Your task to perform on an android device: find photos in the google photos app Image 0: 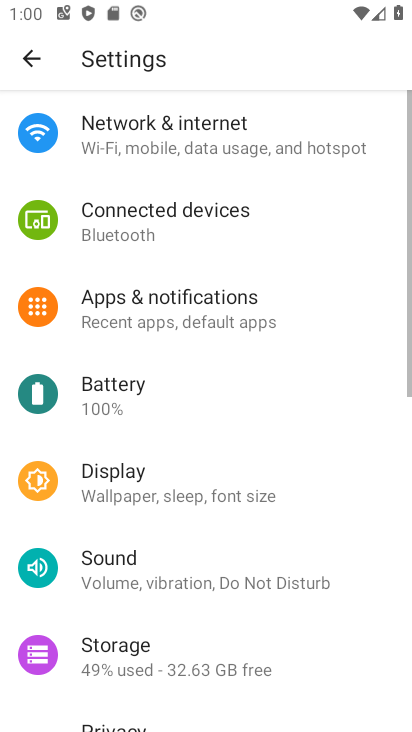
Step 0: press home button
Your task to perform on an android device: find photos in the google photos app Image 1: 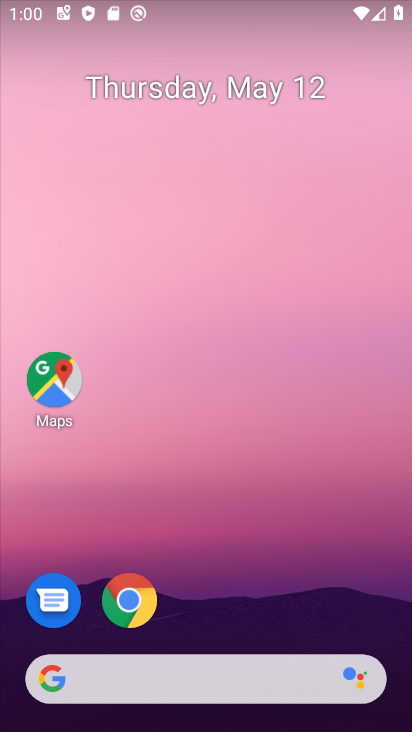
Step 1: drag from (174, 659) to (241, 218)
Your task to perform on an android device: find photos in the google photos app Image 2: 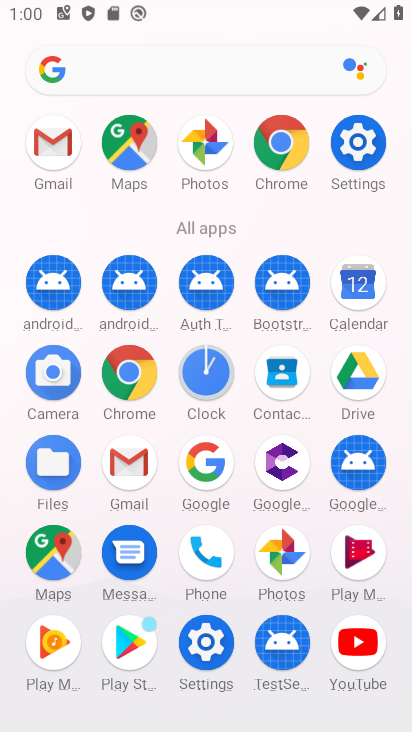
Step 2: click (279, 561)
Your task to perform on an android device: find photos in the google photos app Image 3: 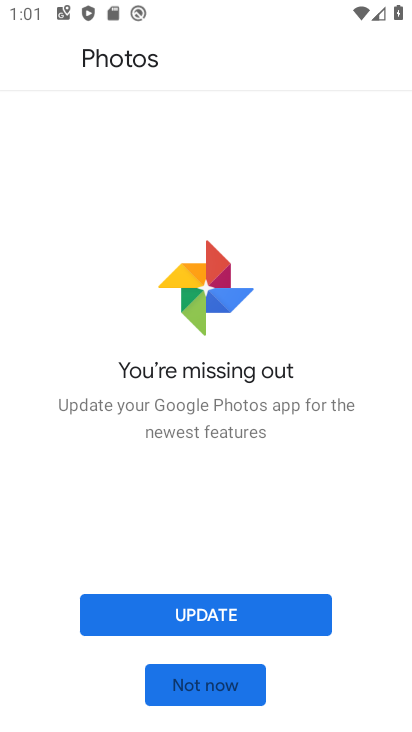
Step 3: click (225, 622)
Your task to perform on an android device: find photos in the google photos app Image 4: 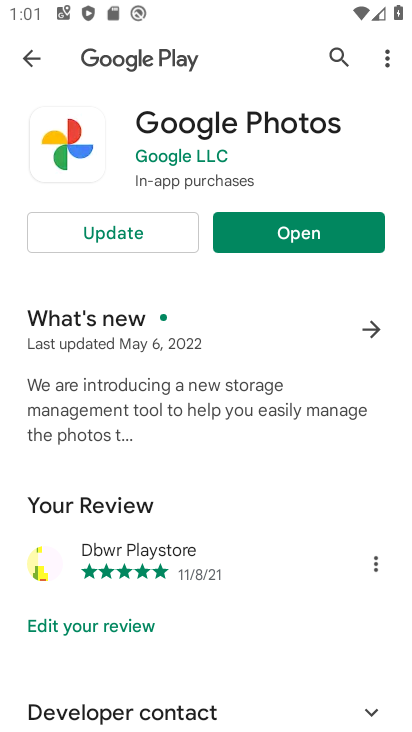
Step 4: click (166, 243)
Your task to perform on an android device: find photos in the google photos app Image 5: 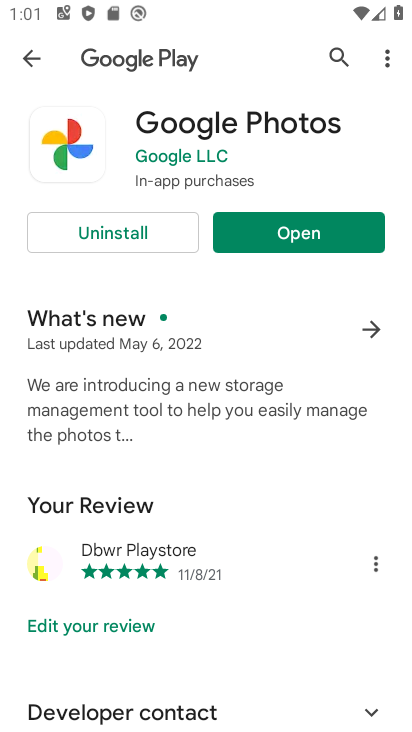
Step 5: click (336, 228)
Your task to perform on an android device: find photos in the google photos app Image 6: 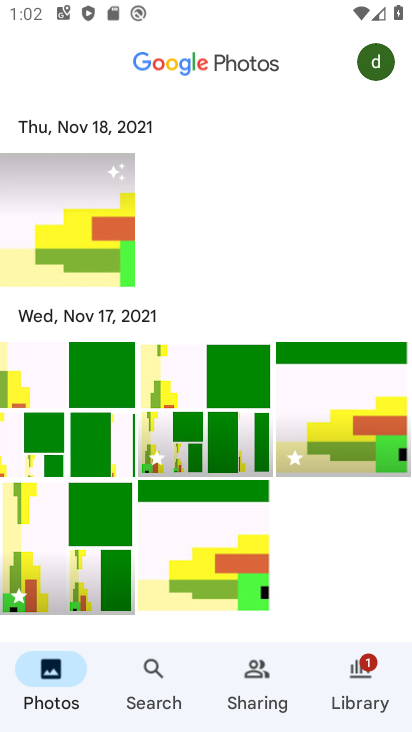
Step 6: task complete